Your task to perform on an android device: allow notifications from all sites in the chrome app Image 0: 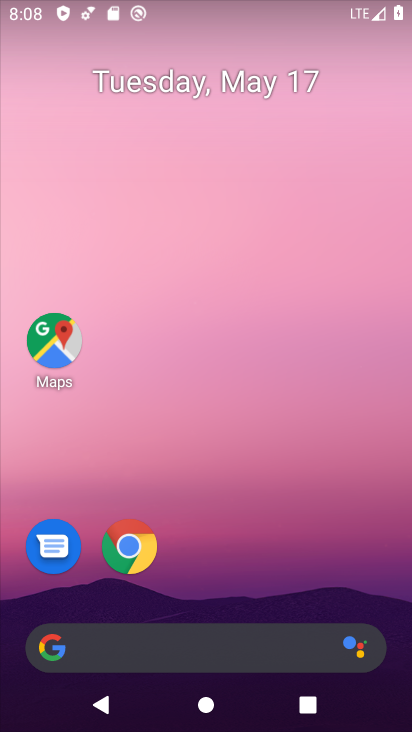
Step 0: drag from (293, 675) to (222, 122)
Your task to perform on an android device: allow notifications from all sites in the chrome app Image 1: 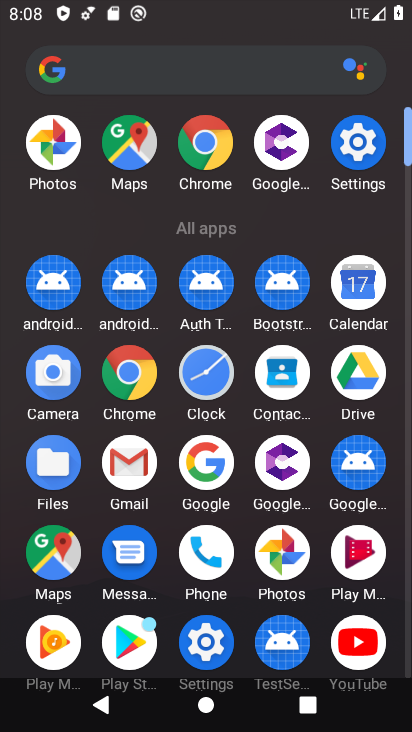
Step 1: click (210, 161)
Your task to perform on an android device: allow notifications from all sites in the chrome app Image 2: 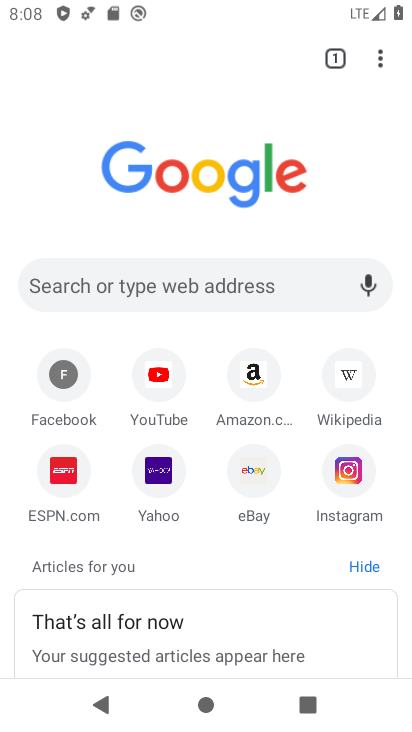
Step 2: drag from (379, 56) to (171, 477)
Your task to perform on an android device: allow notifications from all sites in the chrome app Image 3: 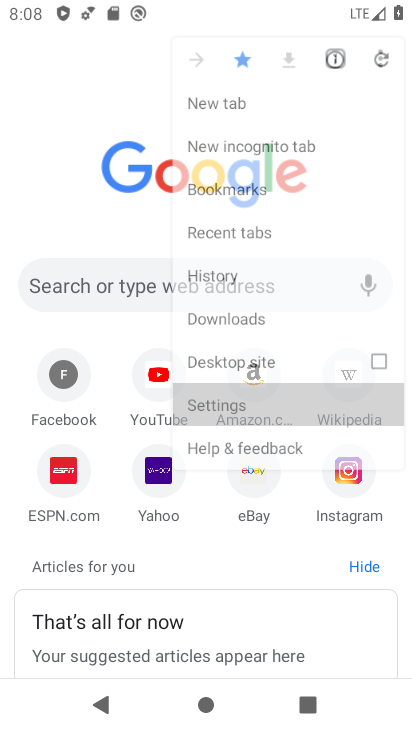
Step 3: click (174, 481)
Your task to perform on an android device: allow notifications from all sites in the chrome app Image 4: 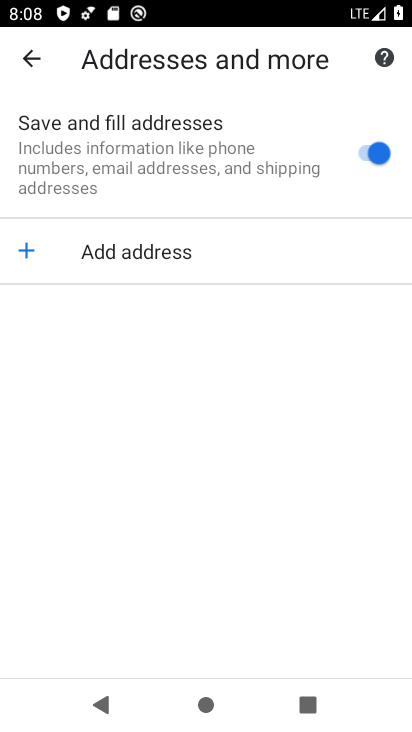
Step 4: click (29, 56)
Your task to perform on an android device: allow notifications from all sites in the chrome app Image 5: 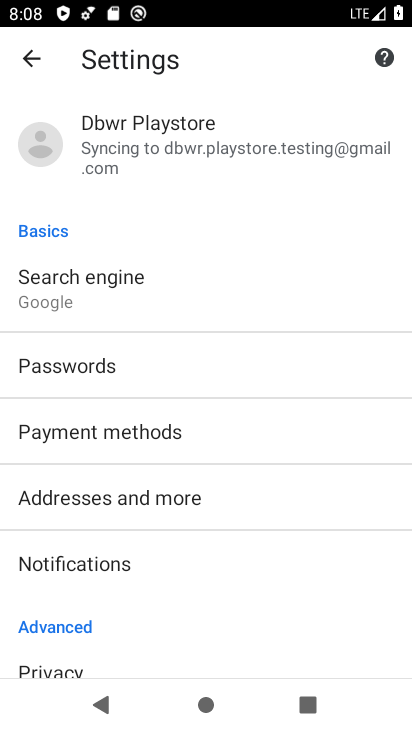
Step 5: drag from (133, 548) to (89, 228)
Your task to perform on an android device: allow notifications from all sites in the chrome app Image 6: 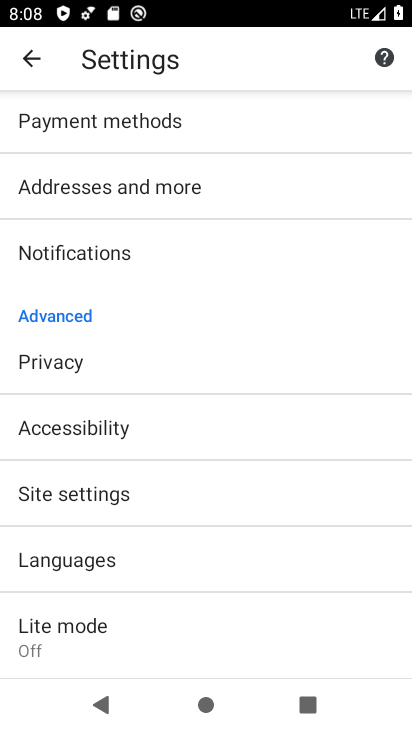
Step 6: click (72, 255)
Your task to perform on an android device: allow notifications from all sites in the chrome app Image 7: 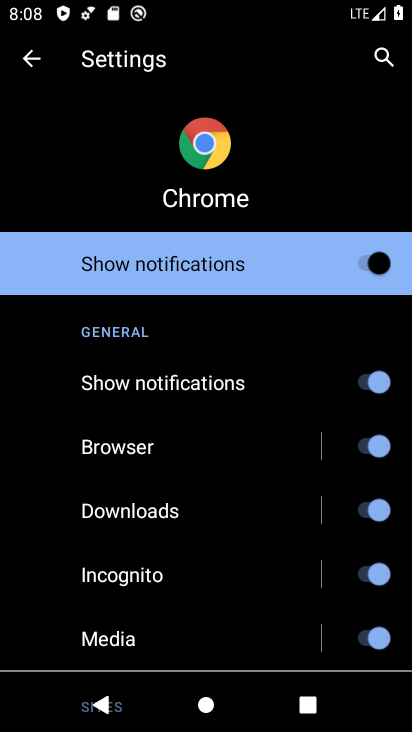
Step 7: click (23, 63)
Your task to perform on an android device: allow notifications from all sites in the chrome app Image 8: 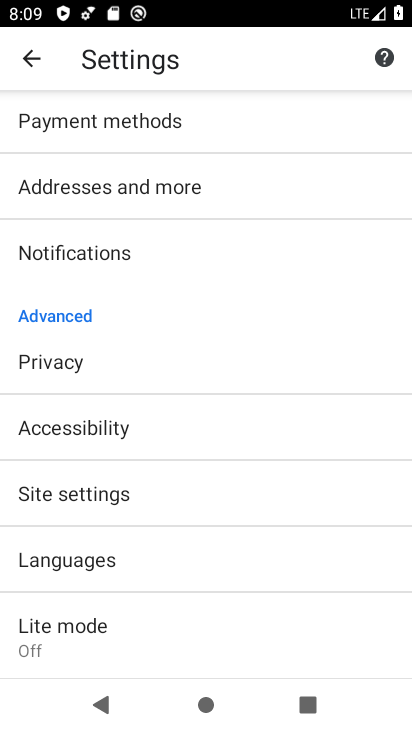
Step 8: task complete